Your task to perform on an android device: change the clock style Image 0: 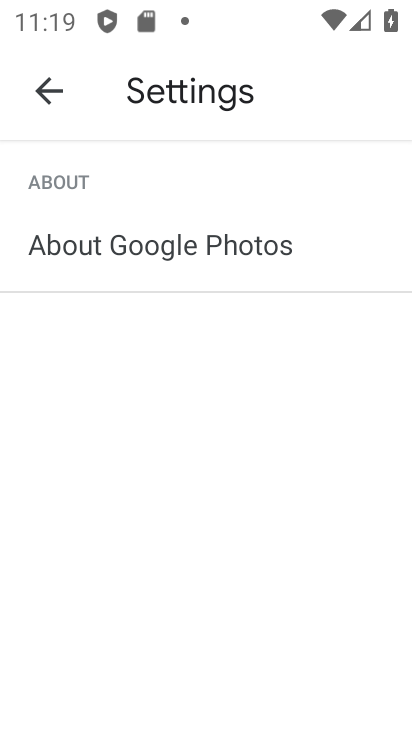
Step 0: drag from (382, 592) to (323, 224)
Your task to perform on an android device: change the clock style Image 1: 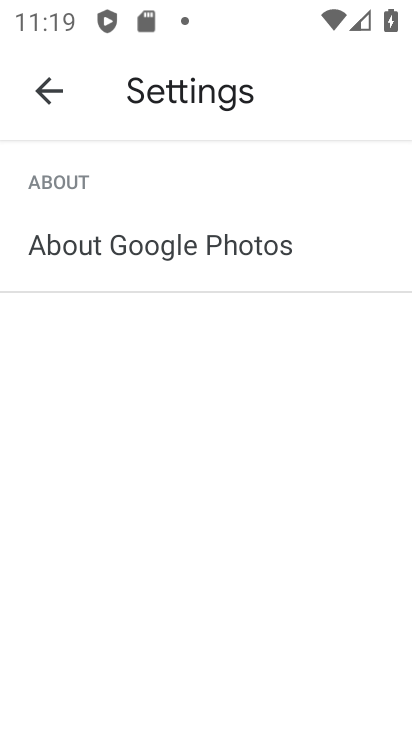
Step 1: press home button
Your task to perform on an android device: change the clock style Image 2: 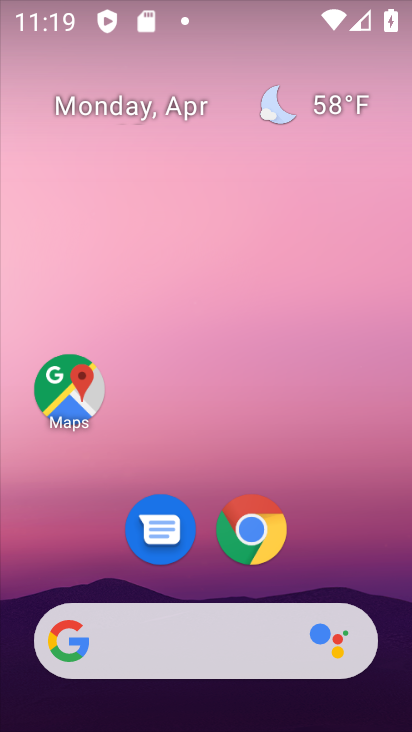
Step 2: drag from (365, 598) to (259, 20)
Your task to perform on an android device: change the clock style Image 3: 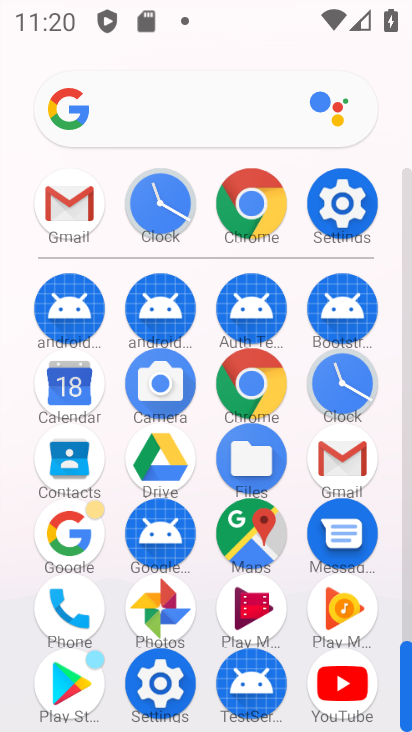
Step 3: click (353, 383)
Your task to perform on an android device: change the clock style Image 4: 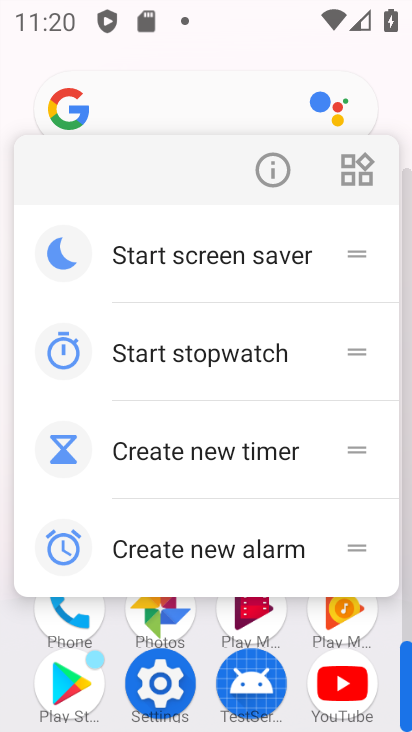
Step 4: press back button
Your task to perform on an android device: change the clock style Image 5: 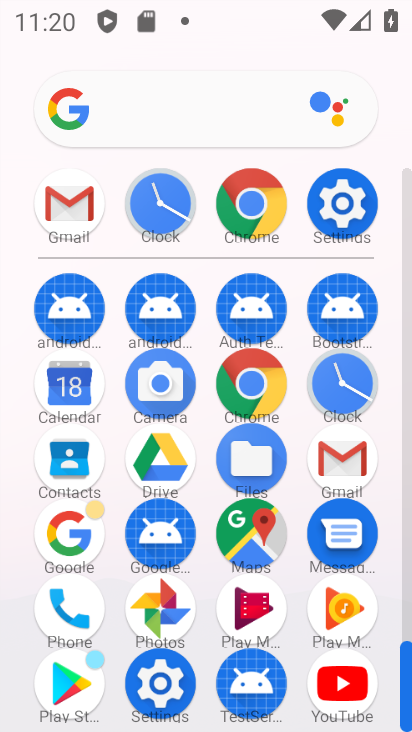
Step 5: click (354, 394)
Your task to perform on an android device: change the clock style Image 6: 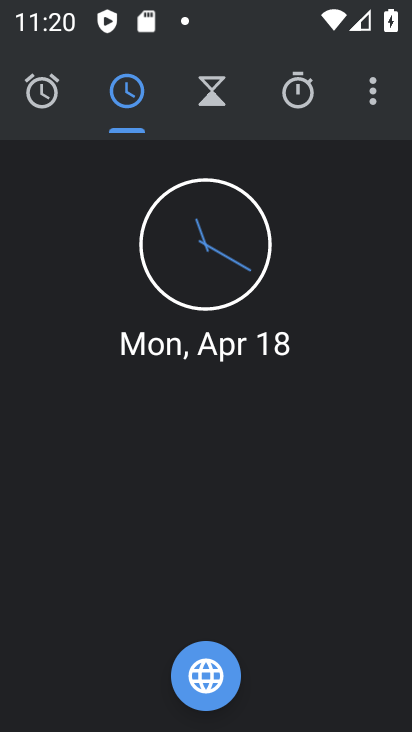
Step 6: click (367, 79)
Your task to perform on an android device: change the clock style Image 7: 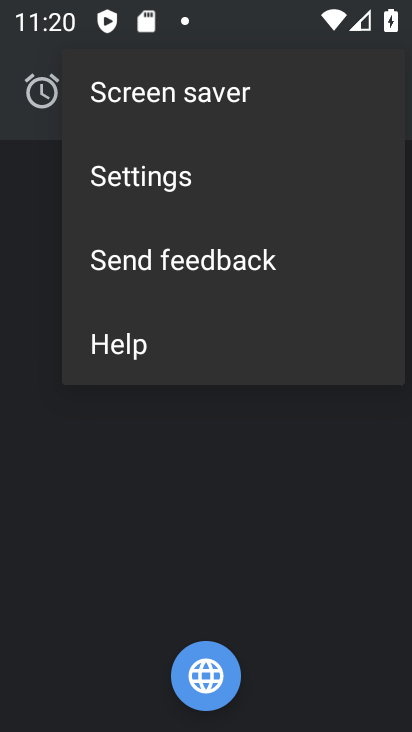
Step 7: click (252, 196)
Your task to perform on an android device: change the clock style Image 8: 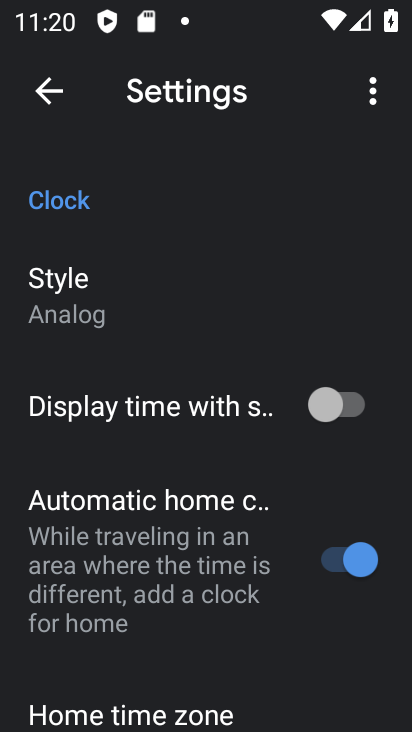
Step 8: click (109, 294)
Your task to perform on an android device: change the clock style Image 9: 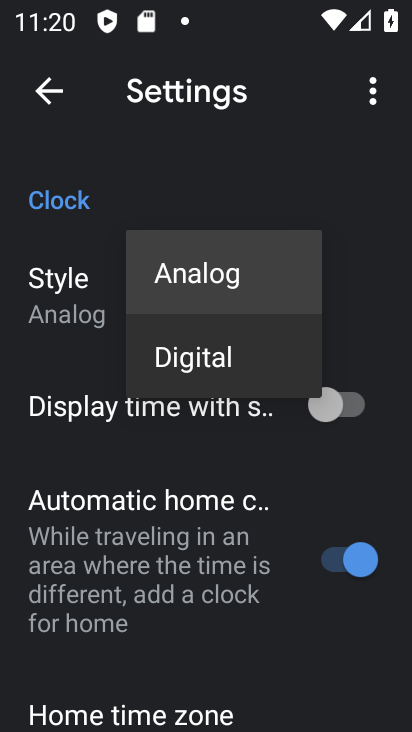
Step 9: click (217, 356)
Your task to perform on an android device: change the clock style Image 10: 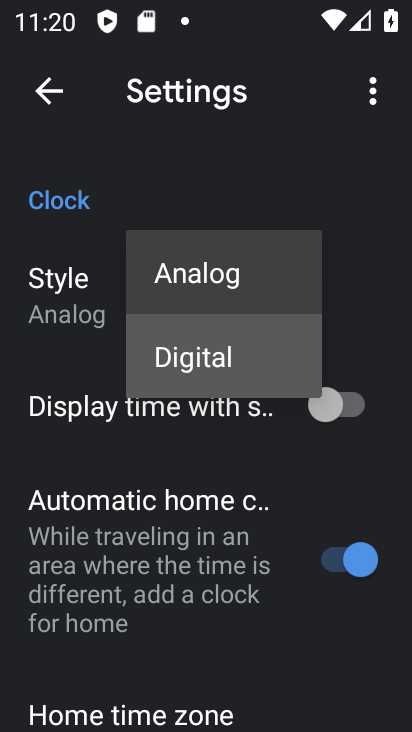
Step 10: task complete